Your task to perform on an android device: turn off wifi Image 0: 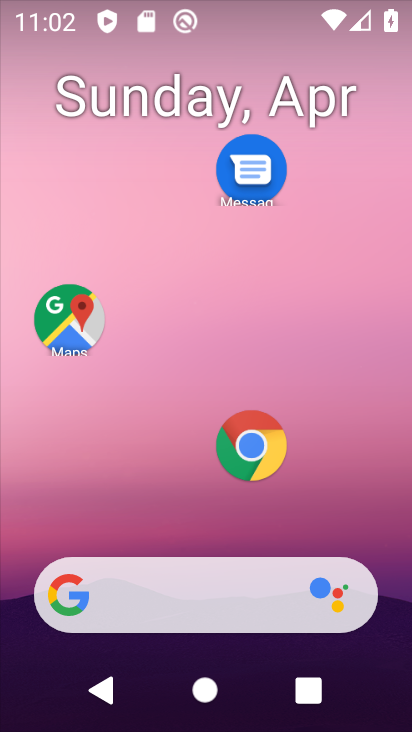
Step 0: drag from (210, 592) to (336, 64)
Your task to perform on an android device: turn off wifi Image 1: 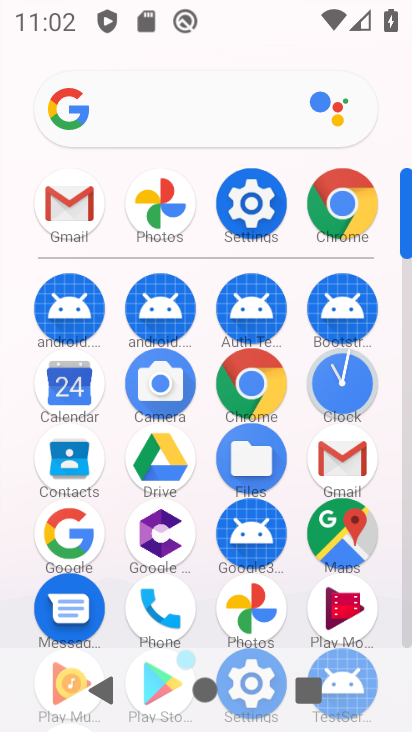
Step 1: click (261, 215)
Your task to perform on an android device: turn off wifi Image 2: 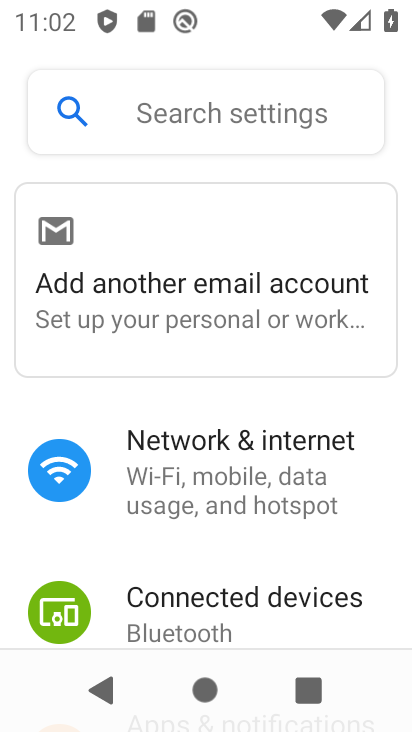
Step 2: click (239, 440)
Your task to perform on an android device: turn off wifi Image 3: 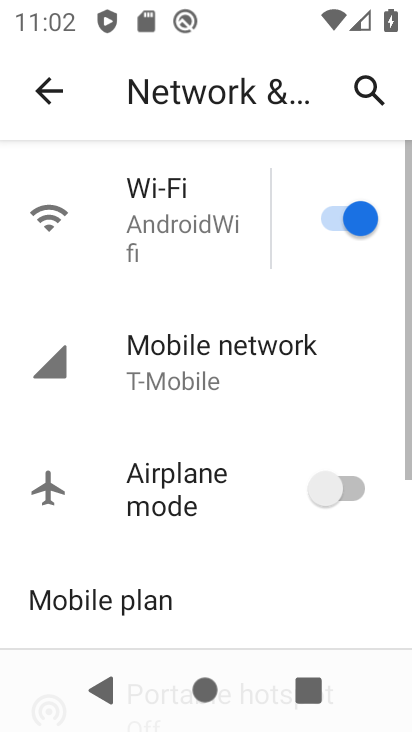
Step 3: click (180, 219)
Your task to perform on an android device: turn off wifi Image 4: 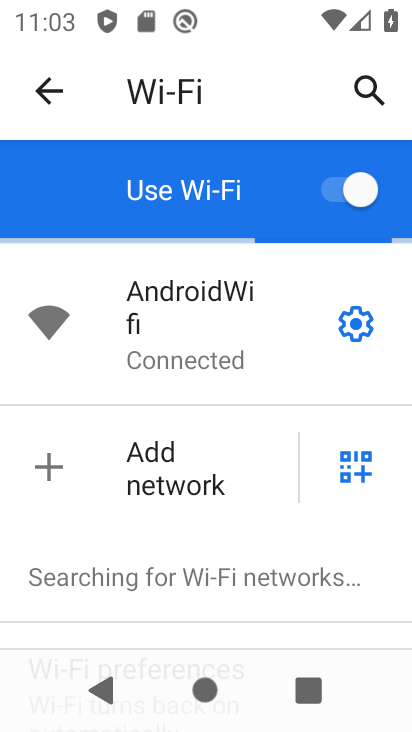
Step 4: click (342, 190)
Your task to perform on an android device: turn off wifi Image 5: 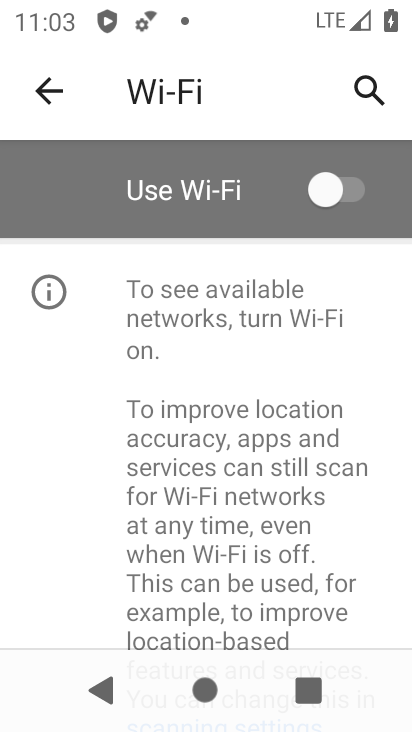
Step 5: task complete